Your task to perform on an android device: Play the last video I watched on Youtube Image 0: 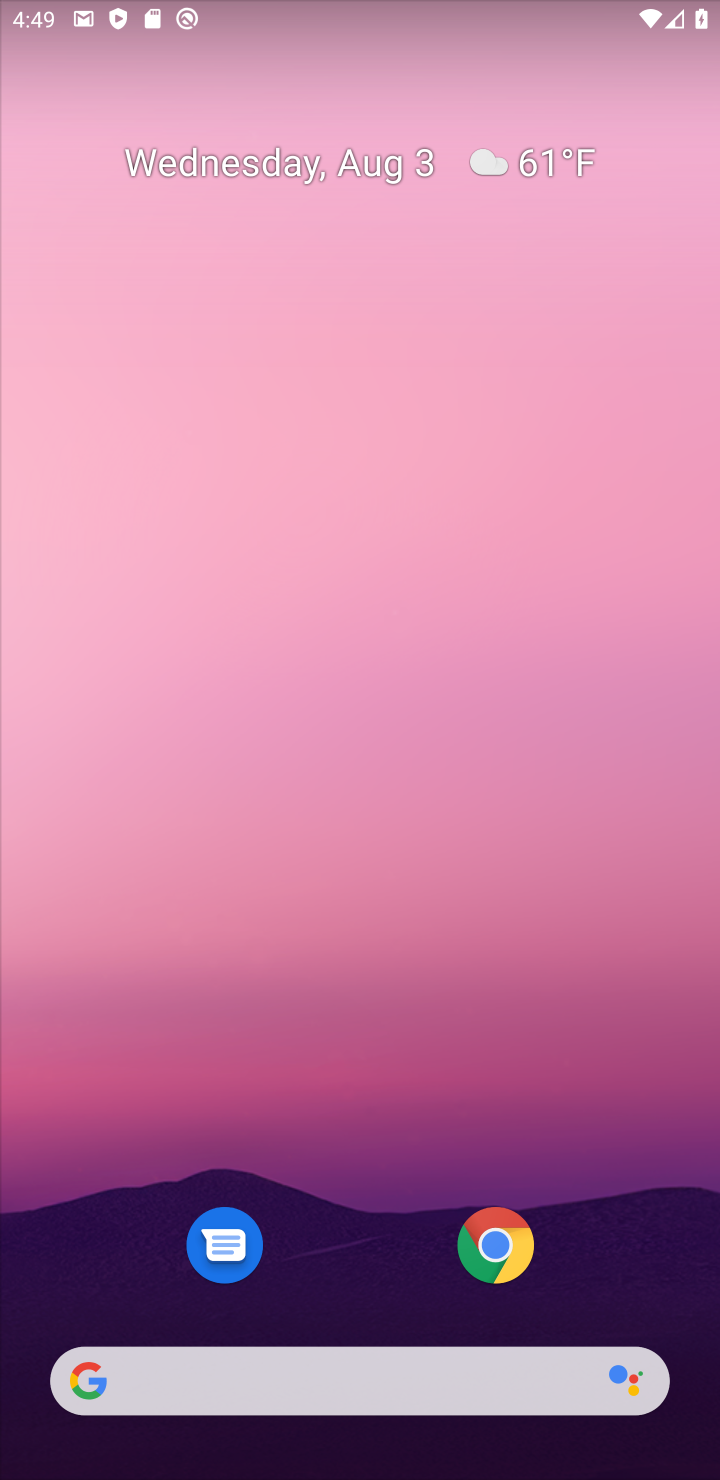
Step 0: drag from (371, 1363) to (351, 172)
Your task to perform on an android device: Play the last video I watched on Youtube Image 1: 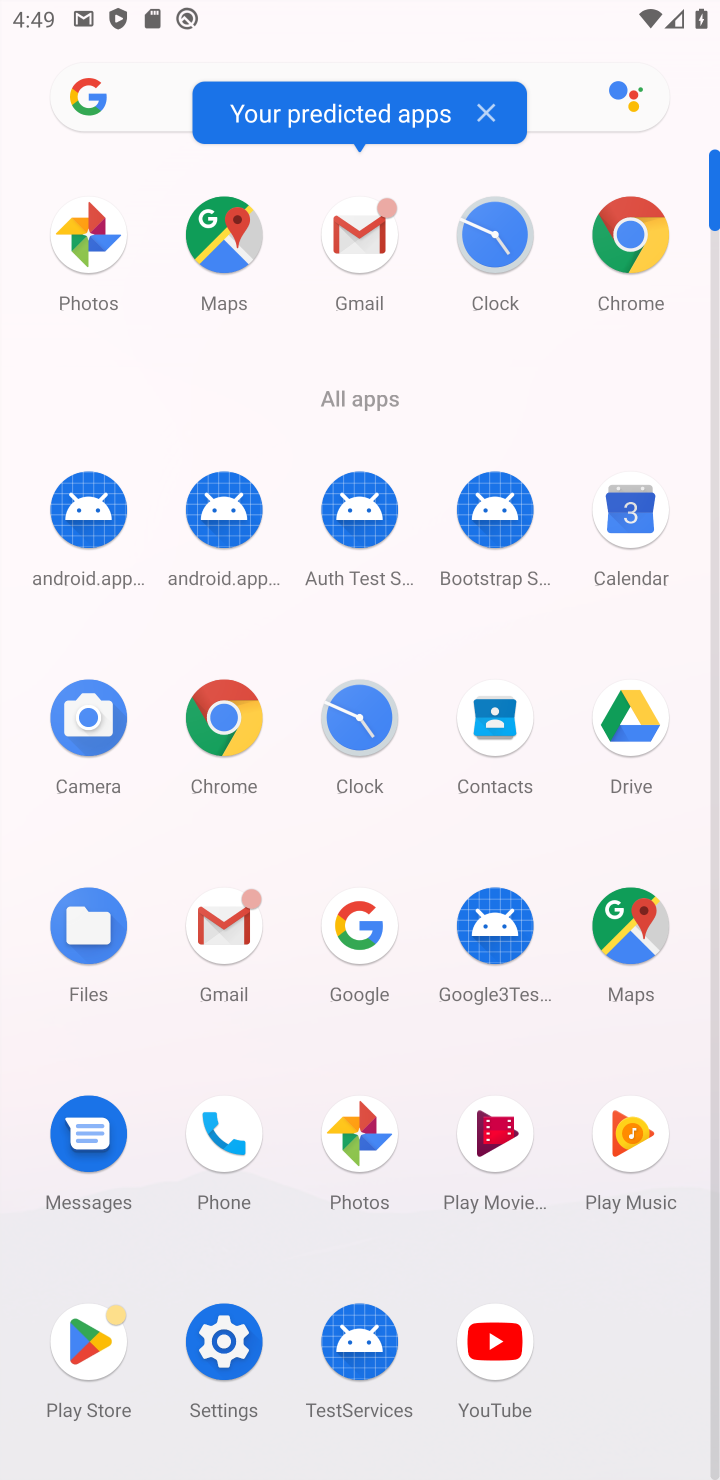
Step 1: click (486, 1353)
Your task to perform on an android device: Play the last video I watched on Youtube Image 2: 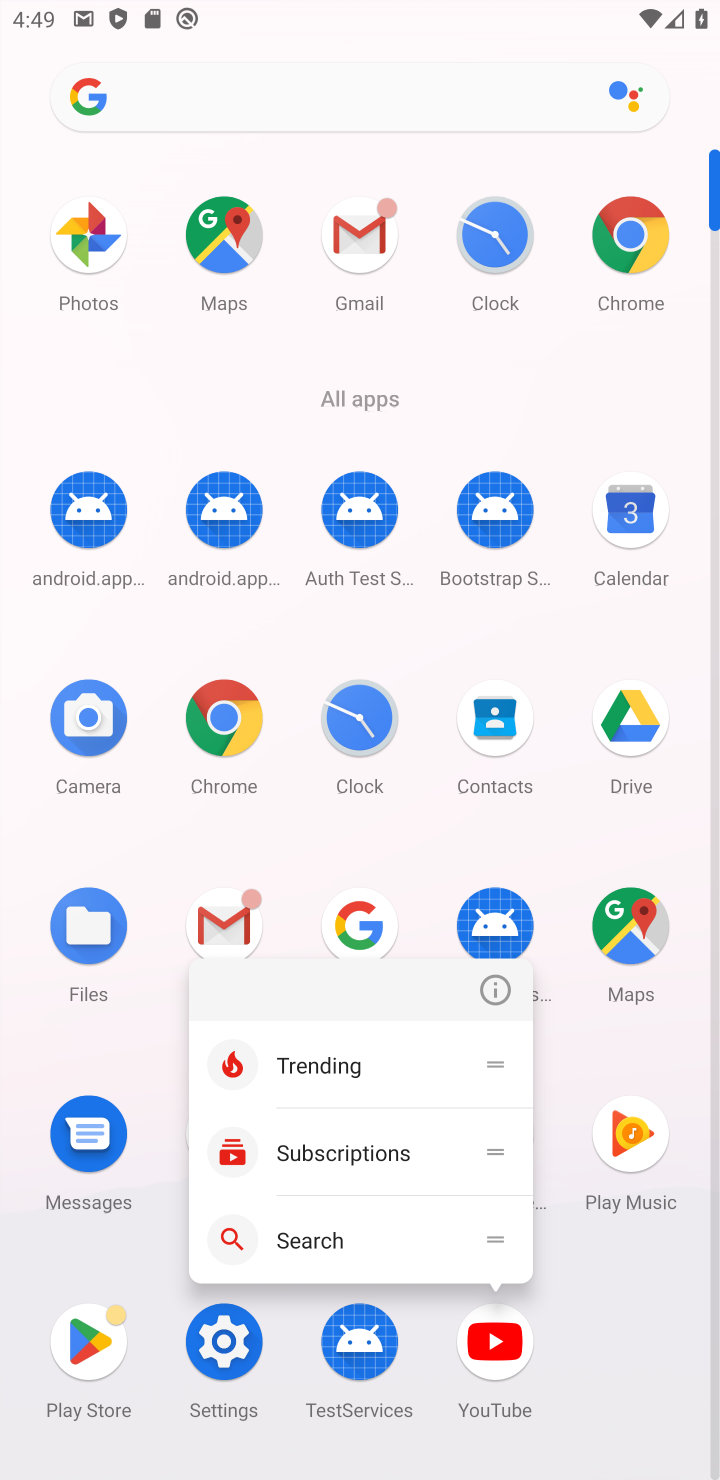
Step 2: click (486, 1353)
Your task to perform on an android device: Play the last video I watched on Youtube Image 3: 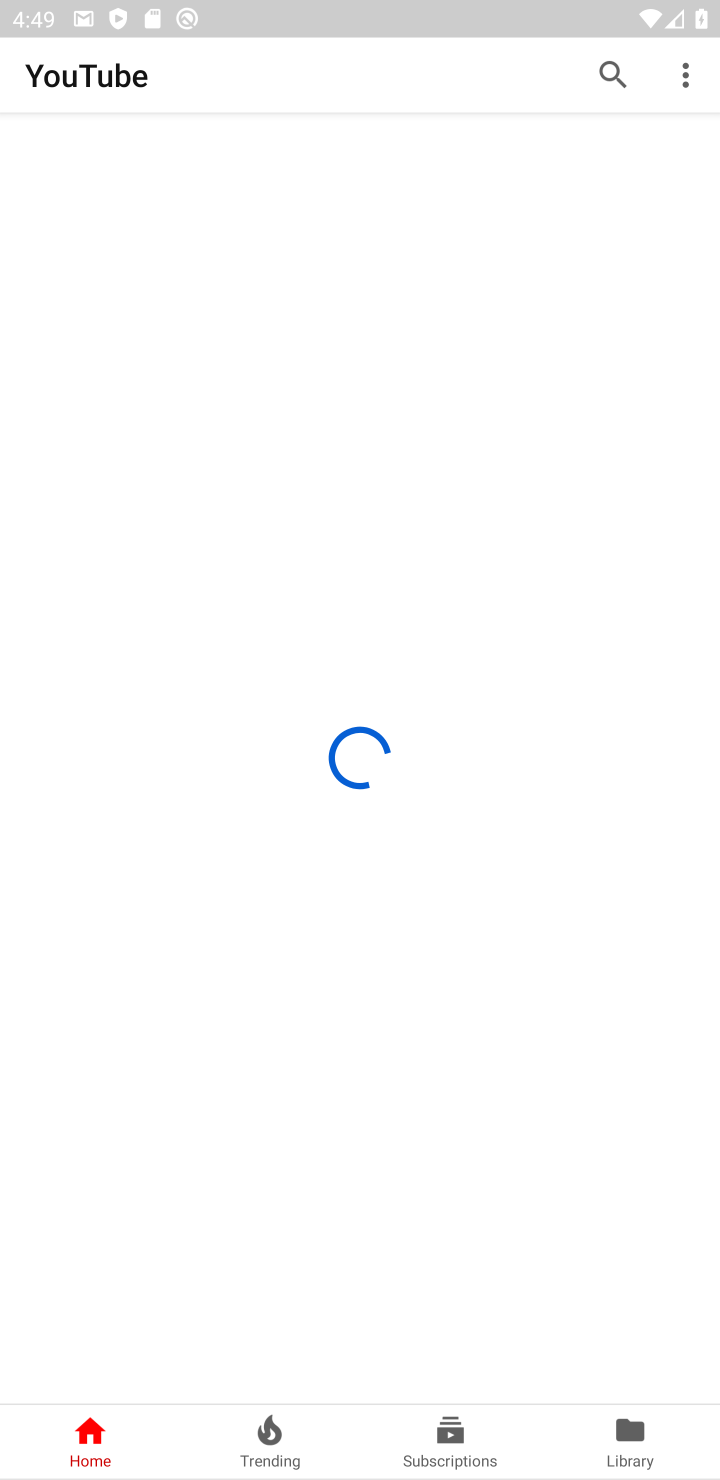
Step 3: click (641, 1447)
Your task to perform on an android device: Play the last video I watched on Youtube Image 4: 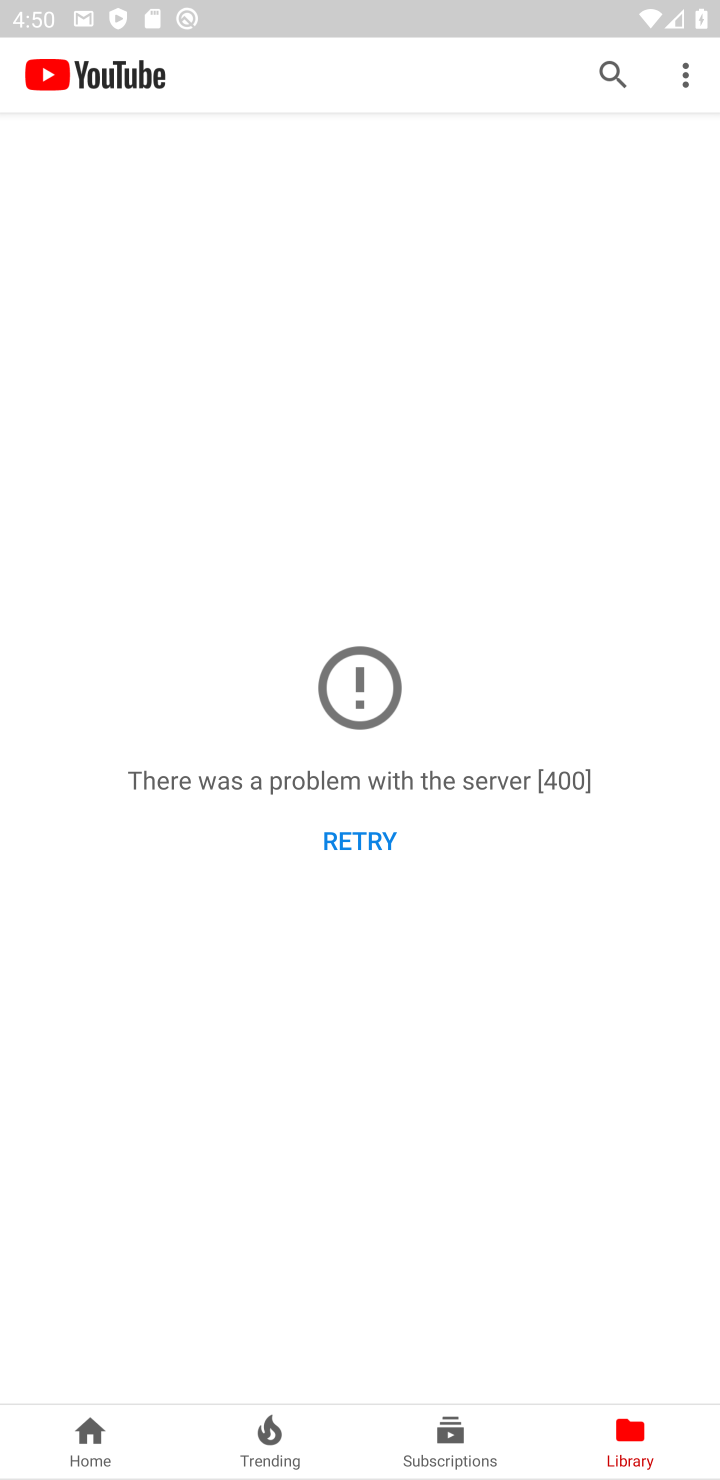
Step 4: task complete